Your task to perform on an android device: turn on notifications settings in the gmail app Image 0: 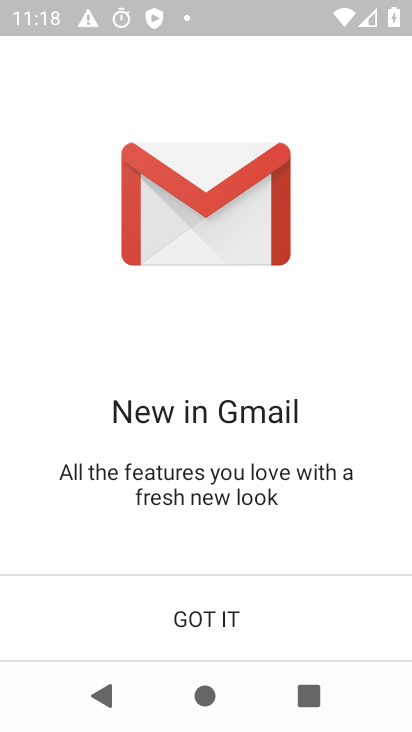
Step 0: press home button
Your task to perform on an android device: turn on notifications settings in the gmail app Image 1: 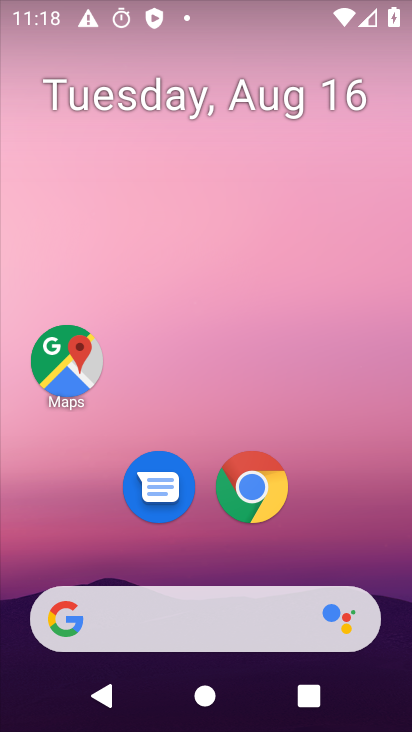
Step 1: drag from (403, 518) to (322, 20)
Your task to perform on an android device: turn on notifications settings in the gmail app Image 2: 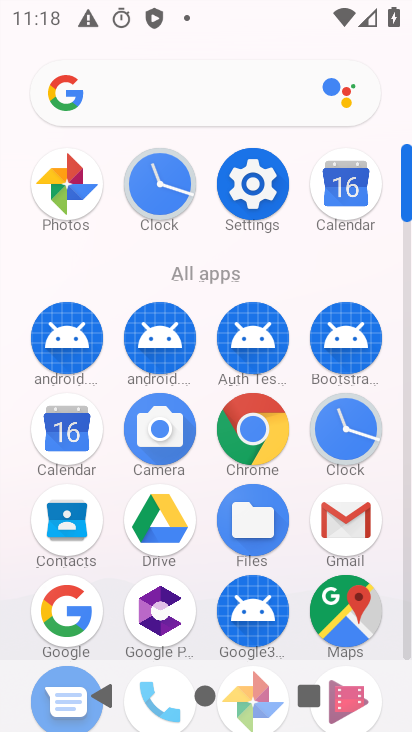
Step 2: click (335, 524)
Your task to perform on an android device: turn on notifications settings in the gmail app Image 3: 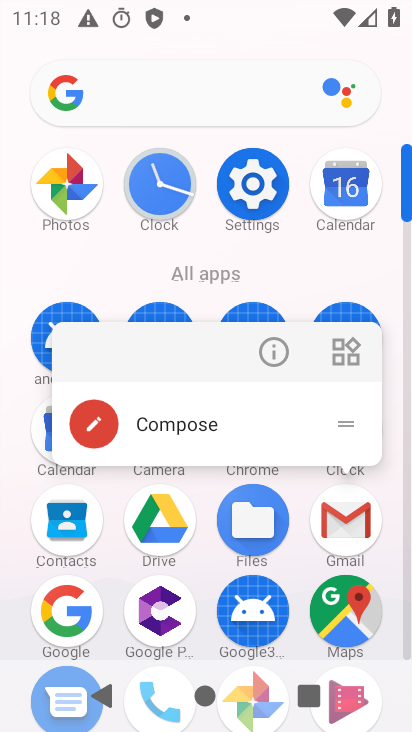
Step 3: click (273, 364)
Your task to perform on an android device: turn on notifications settings in the gmail app Image 4: 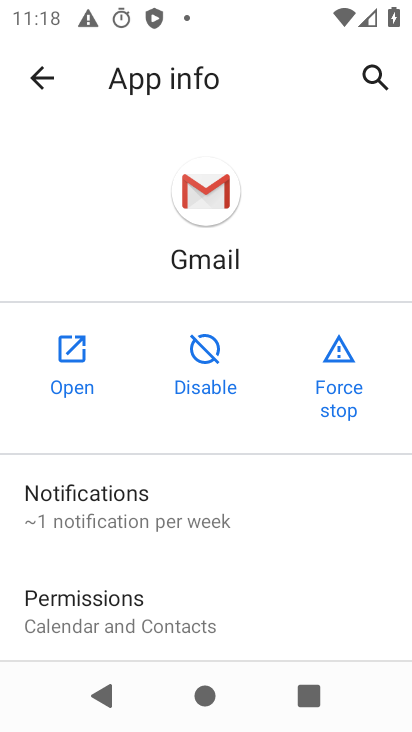
Step 4: click (221, 500)
Your task to perform on an android device: turn on notifications settings in the gmail app Image 5: 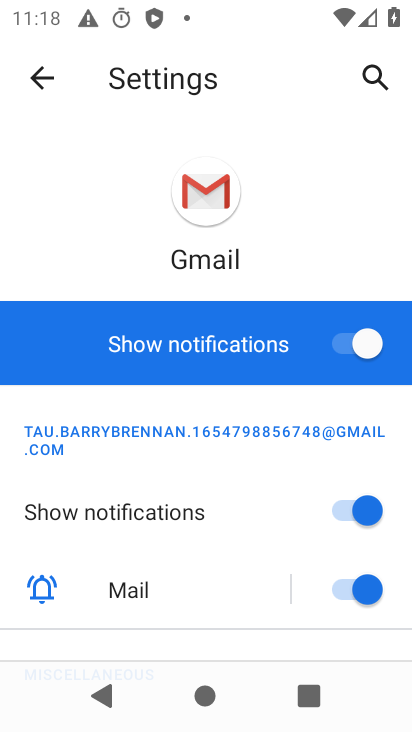
Step 5: task complete